Your task to perform on an android device: Open sound settings Image 0: 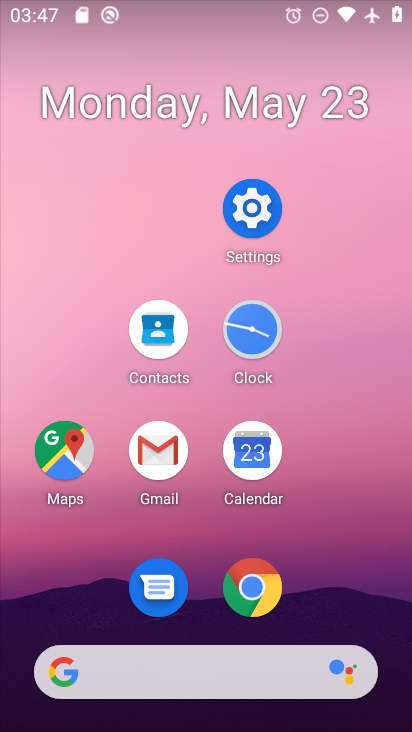
Step 0: drag from (355, 595) to (341, 421)
Your task to perform on an android device: Open sound settings Image 1: 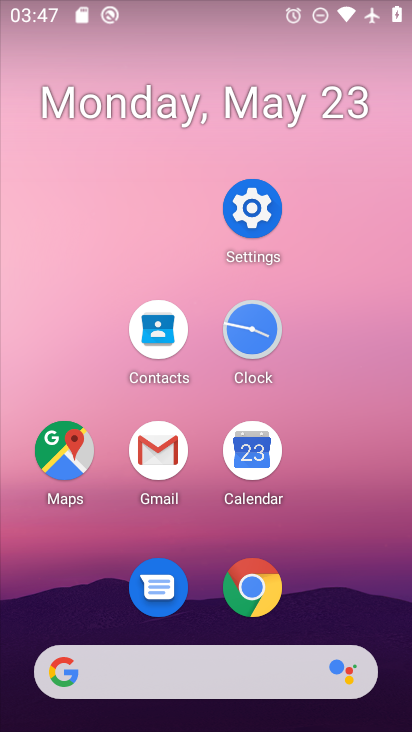
Step 1: click (258, 205)
Your task to perform on an android device: Open sound settings Image 2: 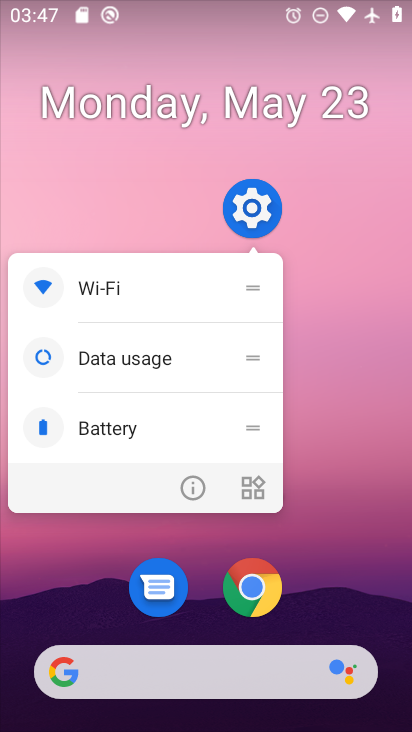
Step 2: click (258, 205)
Your task to perform on an android device: Open sound settings Image 3: 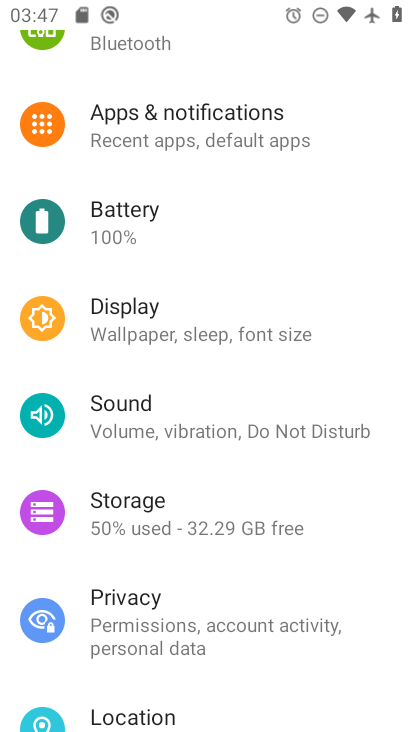
Step 3: drag from (235, 181) to (223, 366)
Your task to perform on an android device: Open sound settings Image 4: 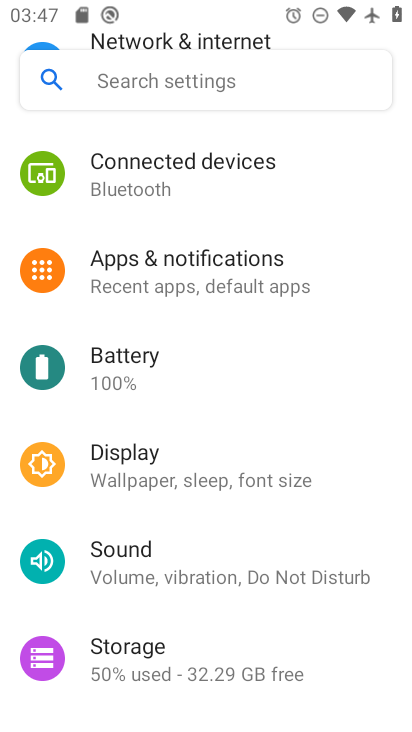
Step 4: click (215, 603)
Your task to perform on an android device: Open sound settings Image 5: 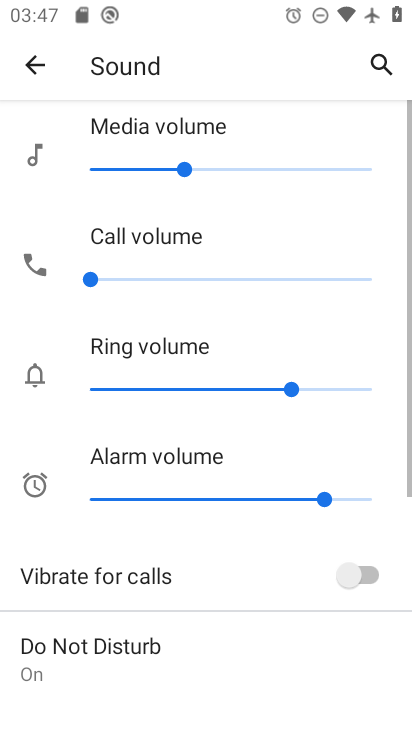
Step 5: task complete